Your task to perform on an android device: Open sound settings Image 0: 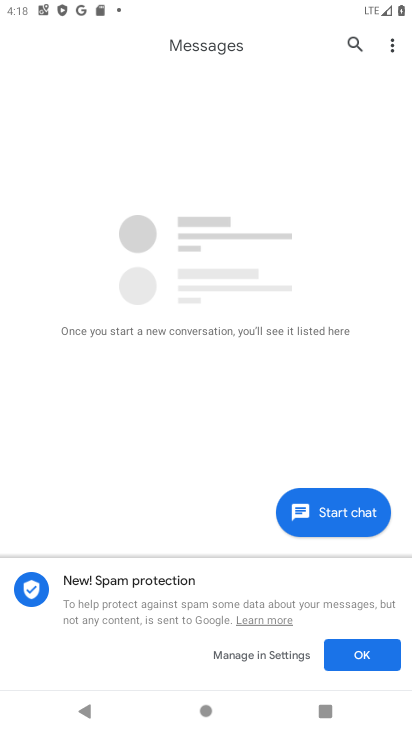
Step 0: press home button
Your task to perform on an android device: Open sound settings Image 1: 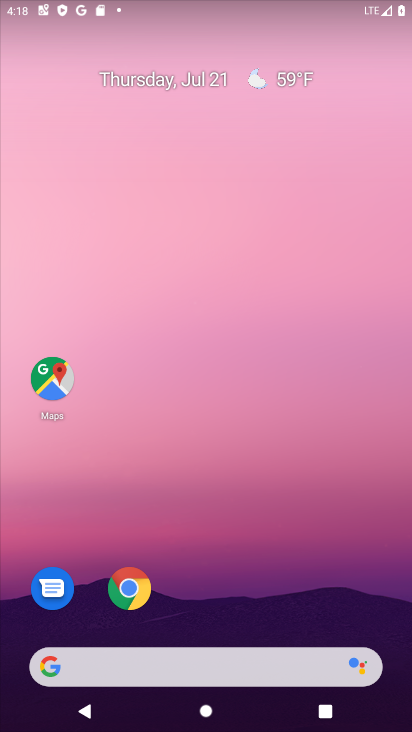
Step 1: drag from (237, 725) to (265, 203)
Your task to perform on an android device: Open sound settings Image 2: 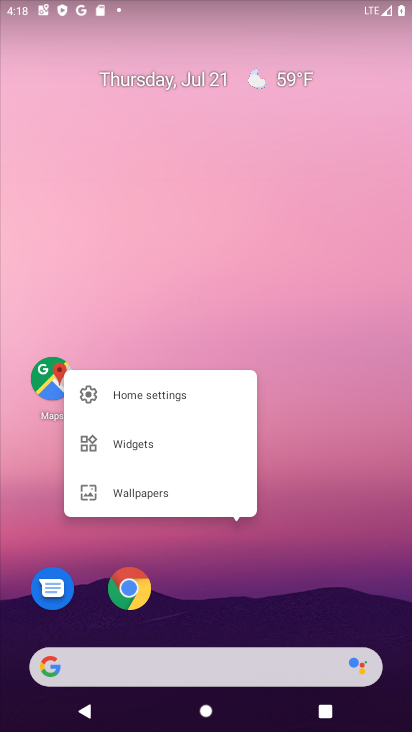
Step 2: click (306, 474)
Your task to perform on an android device: Open sound settings Image 3: 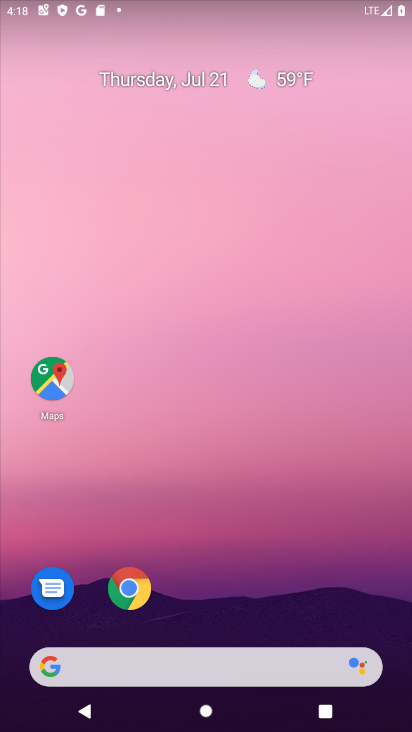
Step 3: drag from (228, 730) to (209, 37)
Your task to perform on an android device: Open sound settings Image 4: 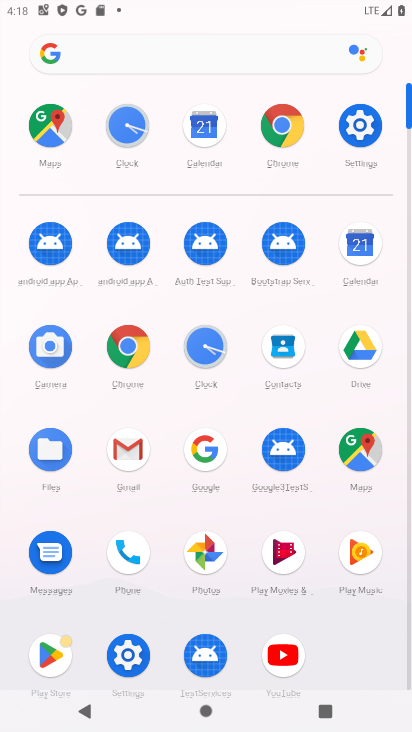
Step 4: click (360, 127)
Your task to perform on an android device: Open sound settings Image 5: 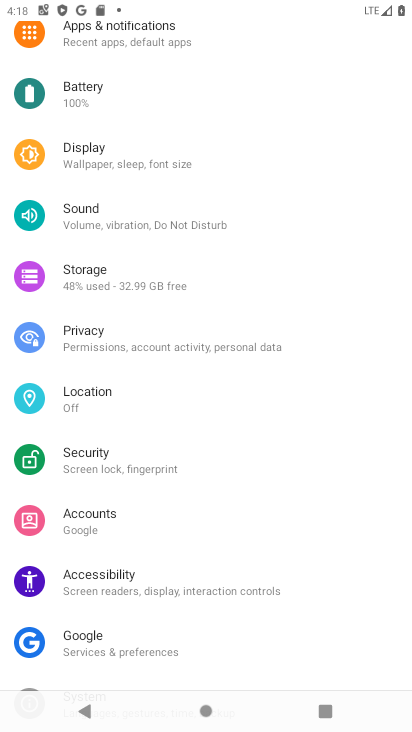
Step 5: click (77, 216)
Your task to perform on an android device: Open sound settings Image 6: 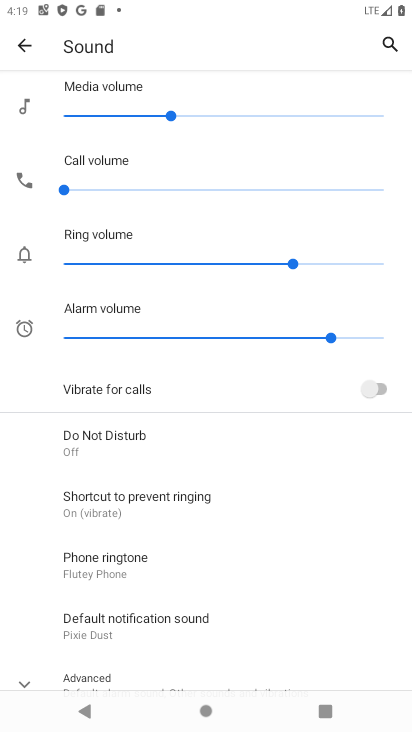
Step 6: task complete